Your task to perform on an android device: Go to Maps Image 0: 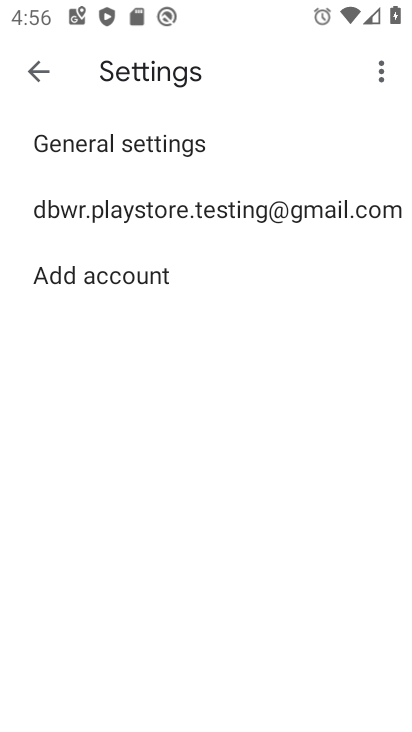
Step 0: press home button
Your task to perform on an android device: Go to Maps Image 1: 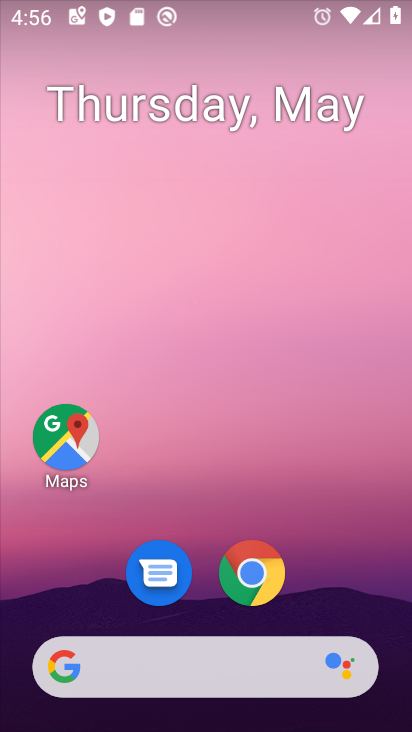
Step 1: click (74, 440)
Your task to perform on an android device: Go to Maps Image 2: 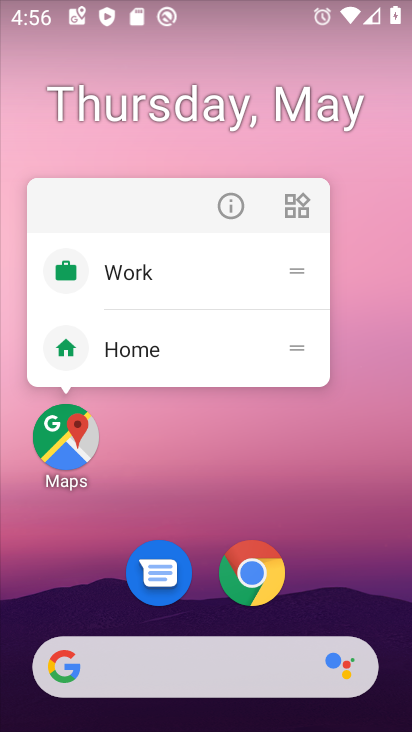
Step 2: click (84, 466)
Your task to perform on an android device: Go to Maps Image 3: 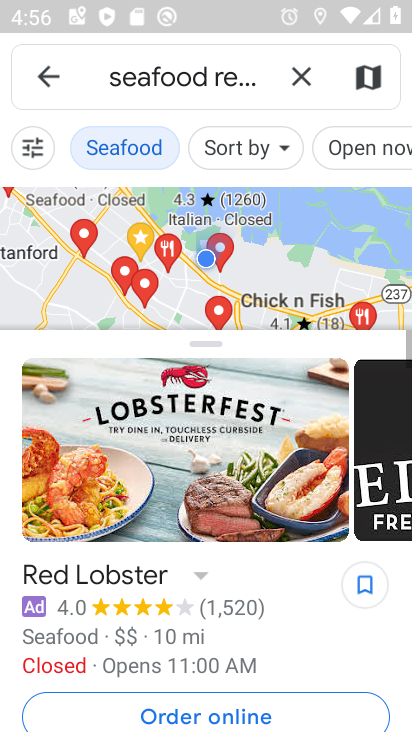
Step 3: task complete